Your task to perform on an android device: Do I have any events tomorrow? Image 0: 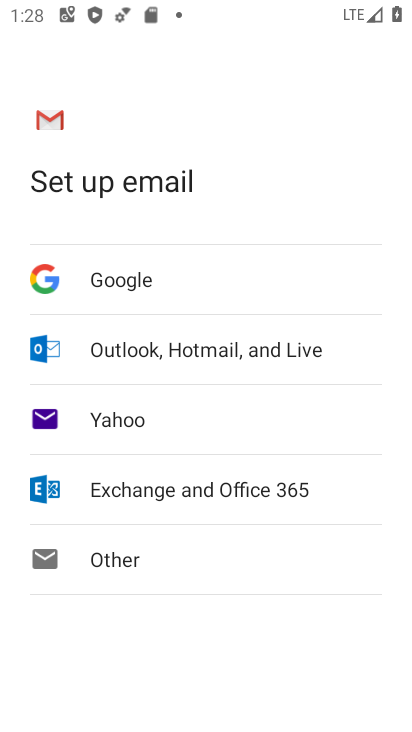
Step 0: press home button
Your task to perform on an android device: Do I have any events tomorrow? Image 1: 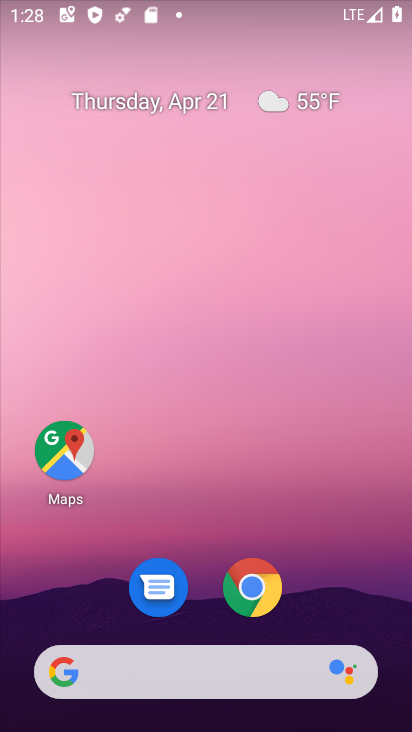
Step 1: drag from (340, 607) to (267, 61)
Your task to perform on an android device: Do I have any events tomorrow? Image 2: 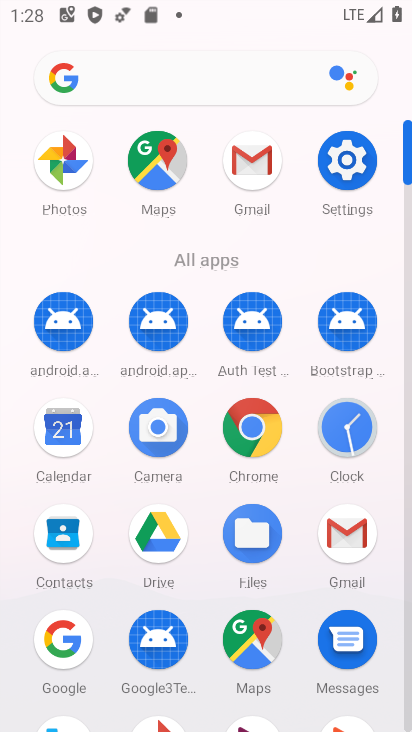
Step 2: click (406, 669)
Your task to perform on an android device: Do I have any events tomorrow? Image 3: 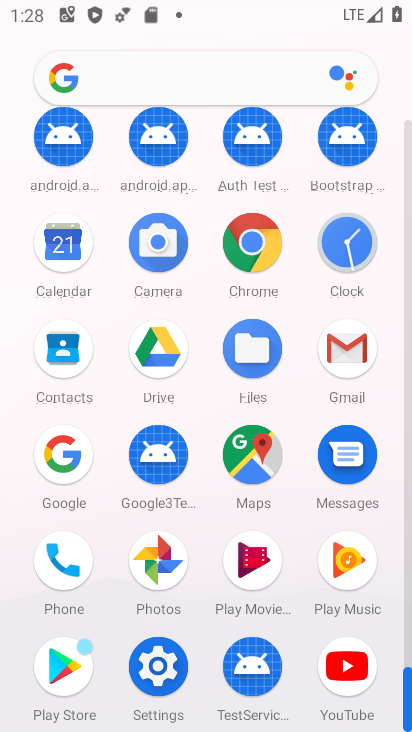
Step 3: click (50, 243)
Your task to perform on an android device: Do I have any events tomorrow? Image 4: 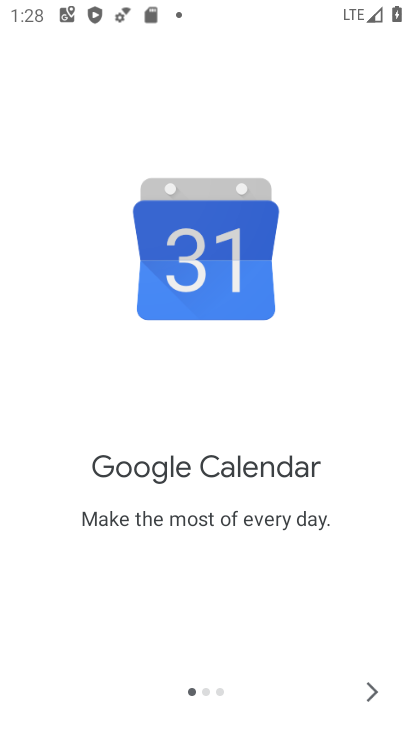
Step 4: click (371, 688)
Your task to perform on an android device: Do I have any events tomorrow? Image 5: 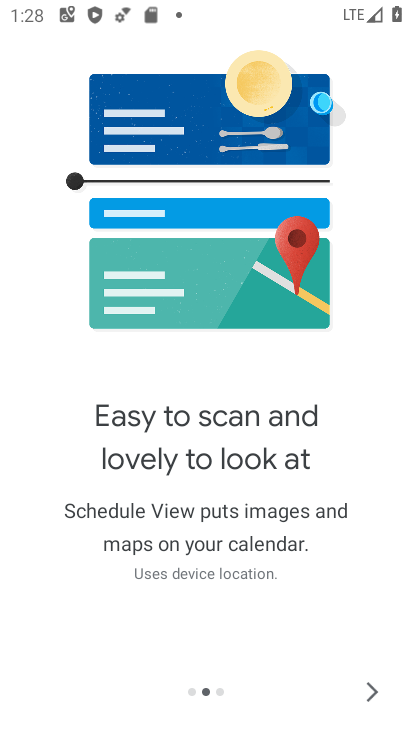
Step 5: click (371, 688)
Your task to perform on an android device: Do I have any events tomorrow? Image 6: 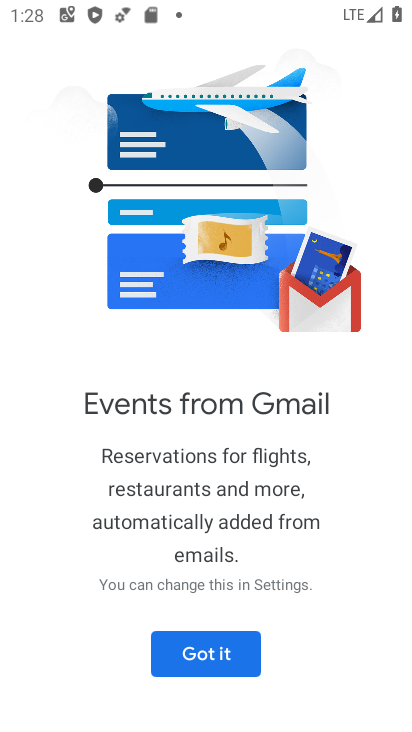
Step 6: click (199, 655)
Your task to perform on an android device: Do I have any events tomorrow? Image 7: 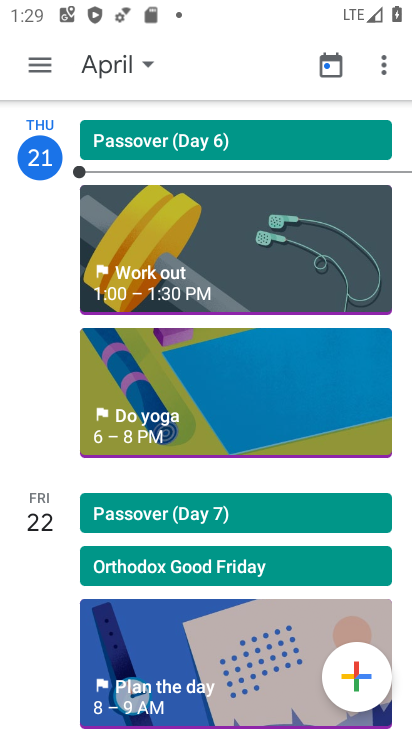
Step 7: click (33, 61)
Your task to perform on an android device: Do I have any events tomorrow? Image 8: 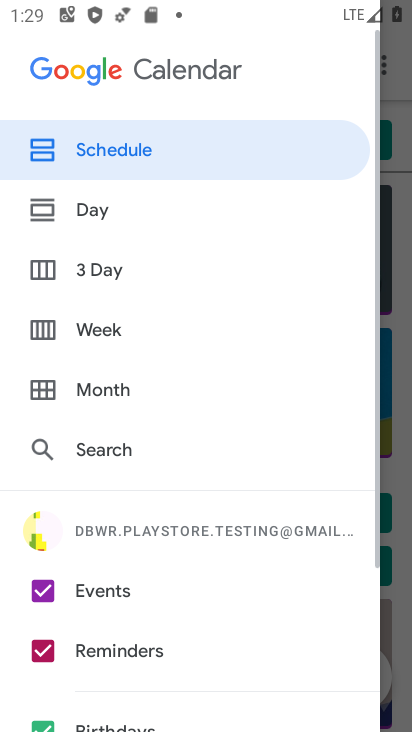
Step 8: click (99, 211)
Your task to perform on an android device: Do I have any events tomorrow? Image 9: 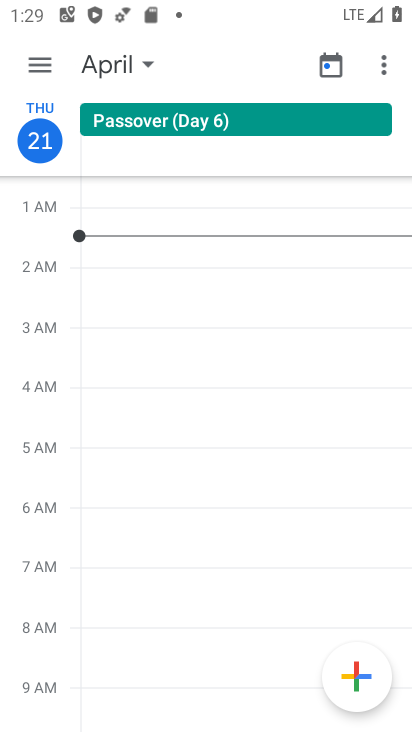
Step 9: click (143, 54)
Your task to perform on an android device: Do I have any events tomorrow? Image 10: 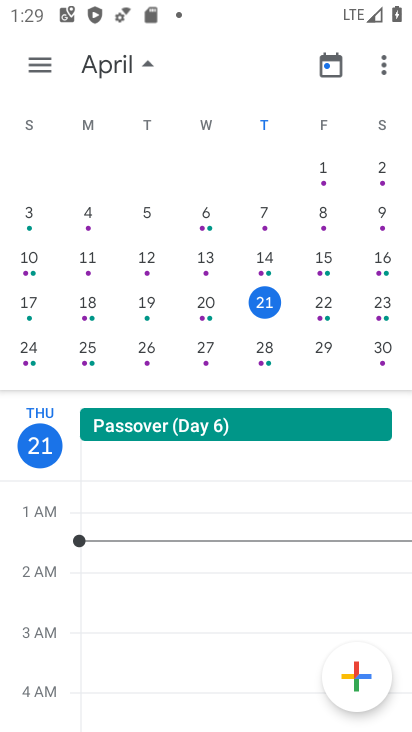
Step 10: click (318, 308)
Your task to perform on an android device: Do I have any events tomorrow? Image 11: 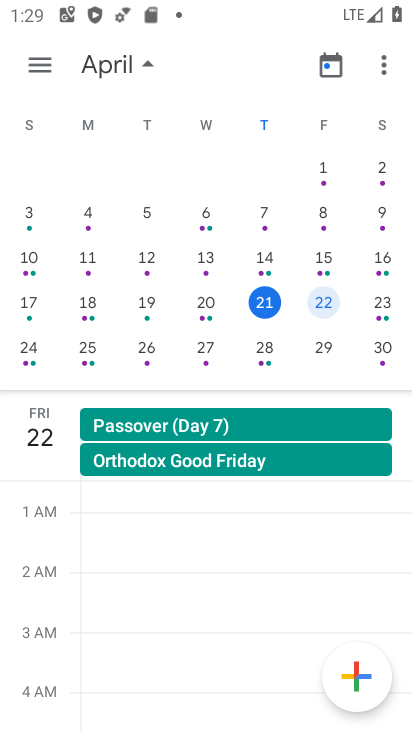
Step 11: task complete